Your task to perform on an android device: change the upload size in google photos Image 0: 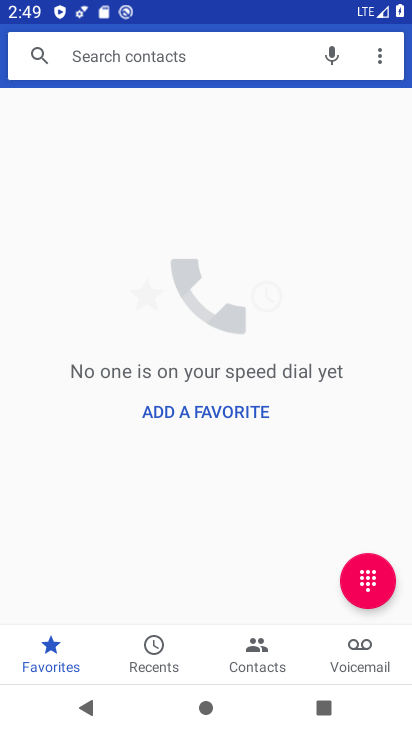
Step 0: press home button
Your task to perform on an android device: change the upload size in google photos Image 1: 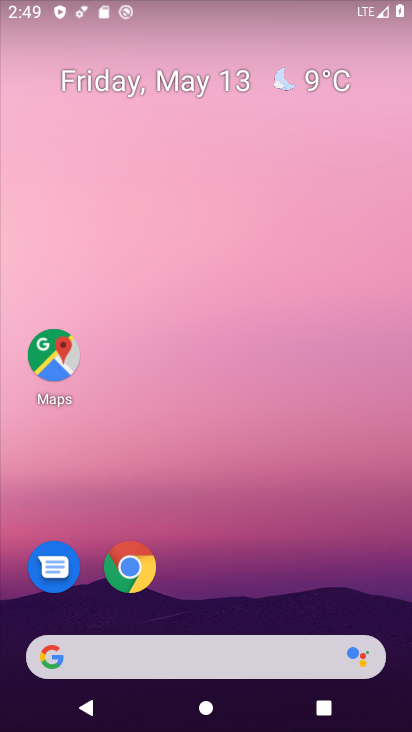
Step 1: drag from (324, 600) to (358, 13)
Your task to perform on an android device: change the upload size in google photos Image 2: 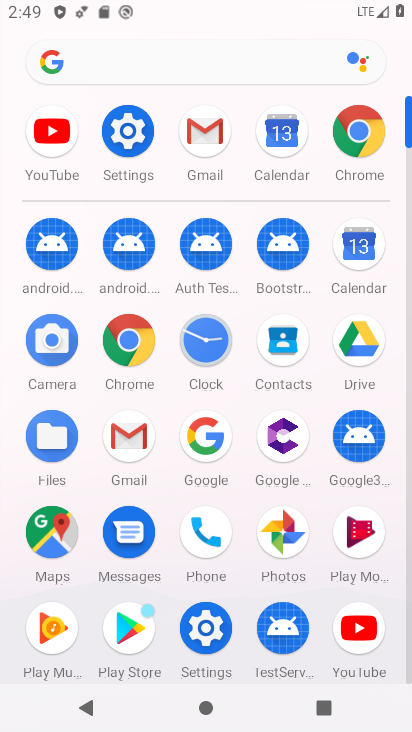
Step 2: click (281, 543)
Your task to perform on an android device: change the upload size in google photos Image 3: 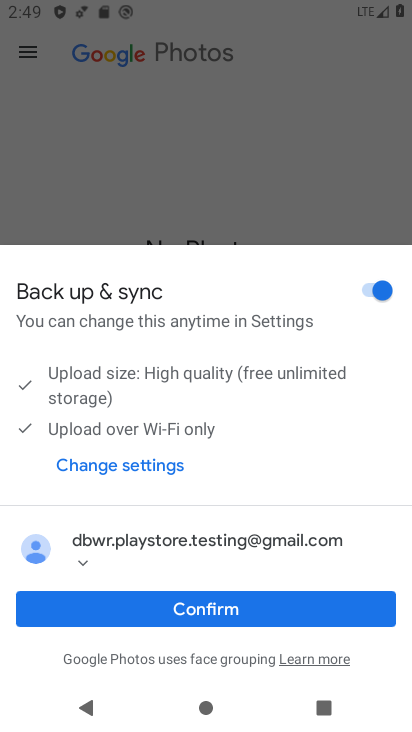
Step 3: click (221, 613)
Your task to perform on an android device: change the upload size in google photos Image 4: 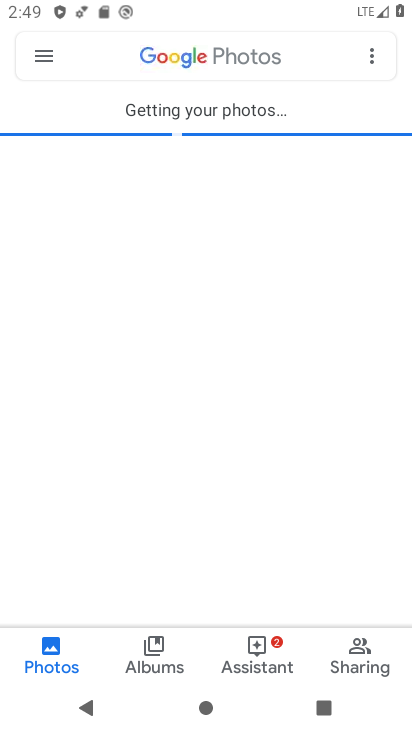
Step 4: click (39, 61)
Your task to perform on an android device: change the upload size in google photos Image 5: 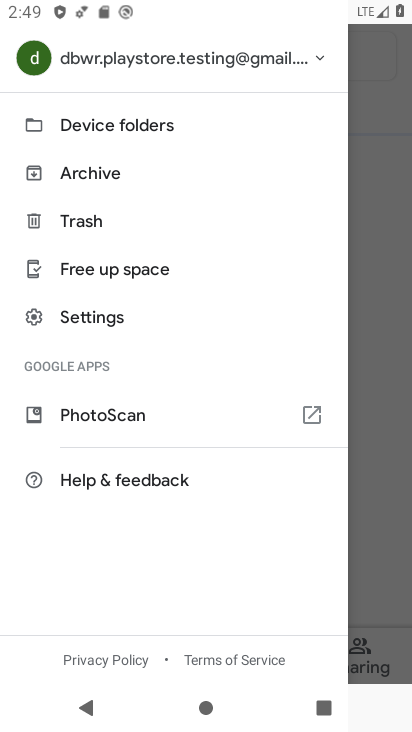
Step 5: click (104, 319)
Your task to perform on an android device: change the upload size in google photos Image 6: 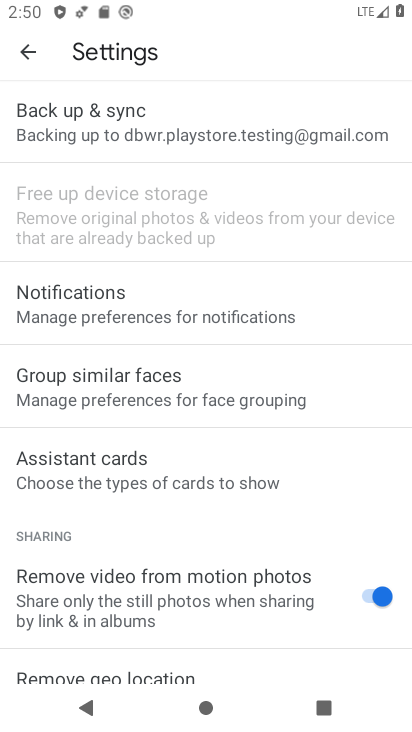
Step 6: click (123, 137)
Your task to perform on an android device: change the upload size in google photos Image 7: 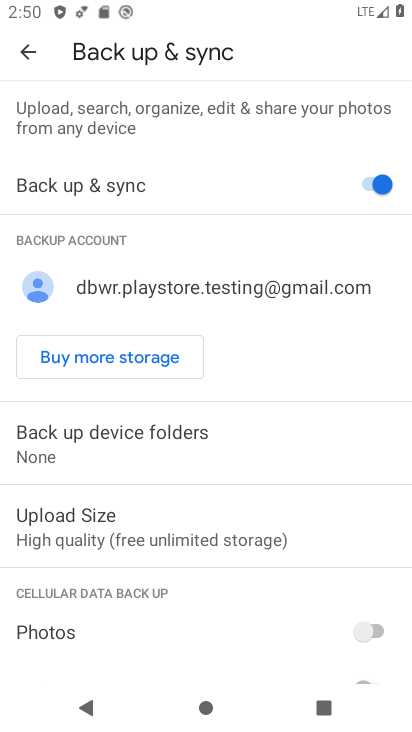
Step 7: click (99, 541)
Your task to perform on an android device: change the upload size in google photos Image 8: 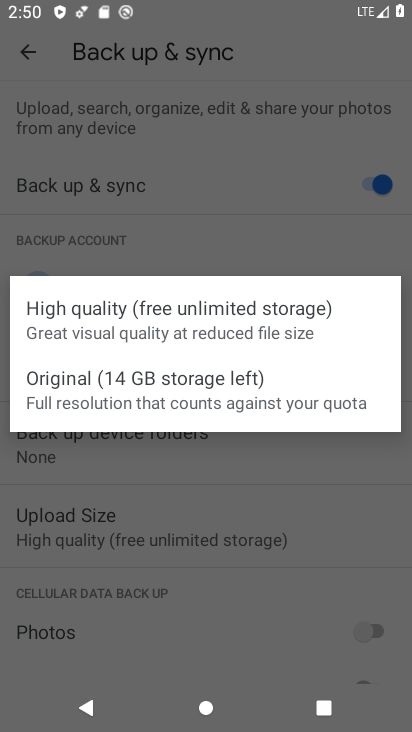
Step 8: click (69, 404)
Your task to perform on an android device: change the upload size in google photos Image 9: 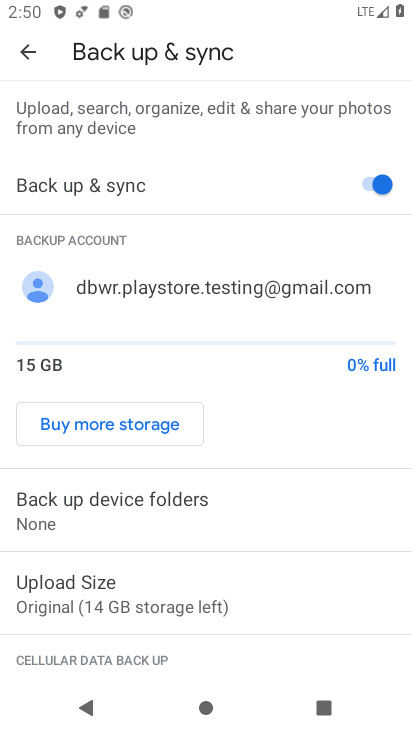
Step 9: task complete